Your task to perform on an android device: install app "Indeed Job Search" Image 0: 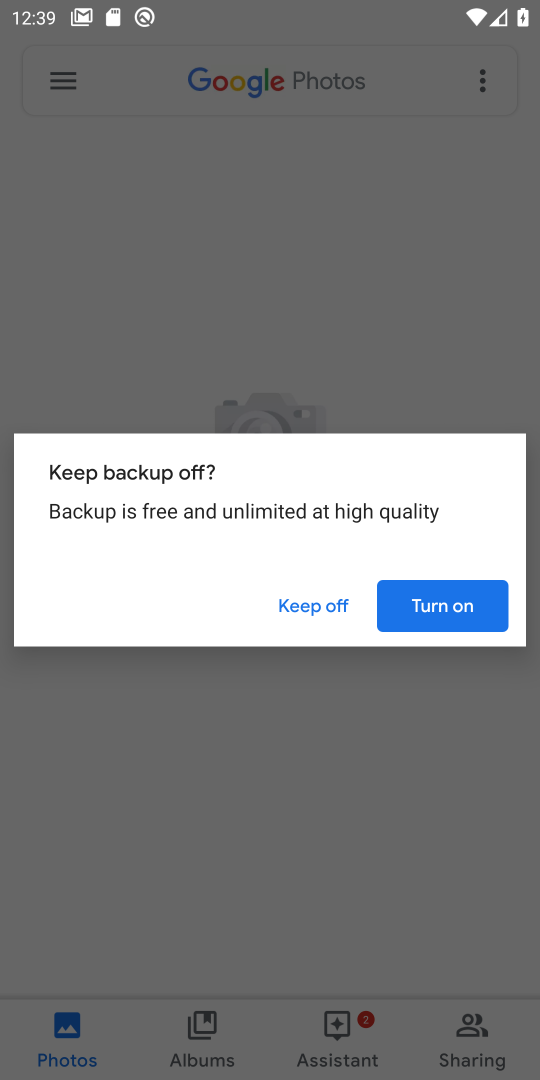
Step 0: press home button
Your task to perform on an android device: install app "Indeed Job Search" Image 1: 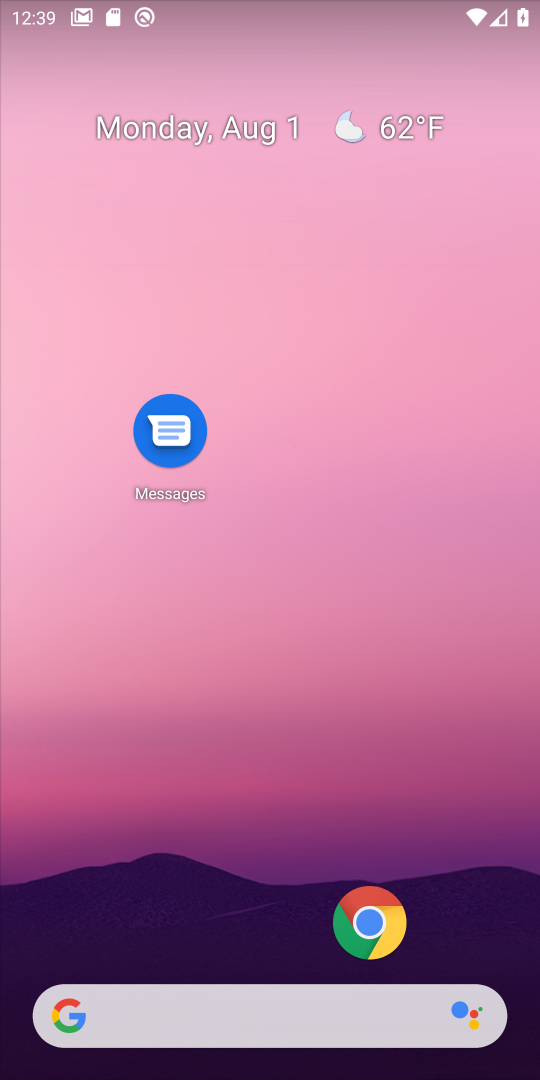
Step 1: drag from (279, 742) to (293, 42)
Your task to perform on an android device: install app "Indeed Job Search" Image 2: 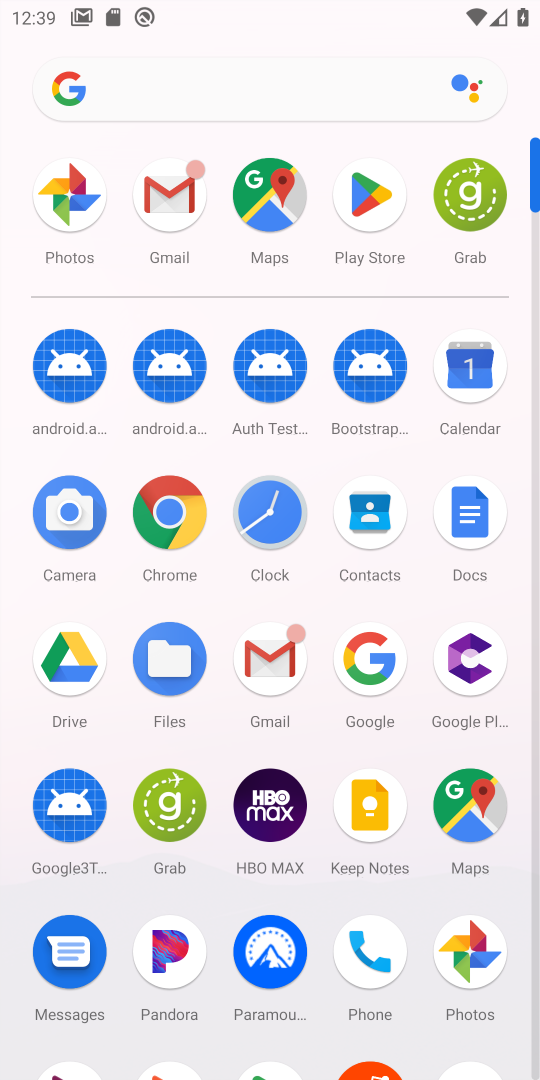
Step 2: click (361, 232)
Your task to perform on an android device: install app "Indeed Job Search" Image 3: 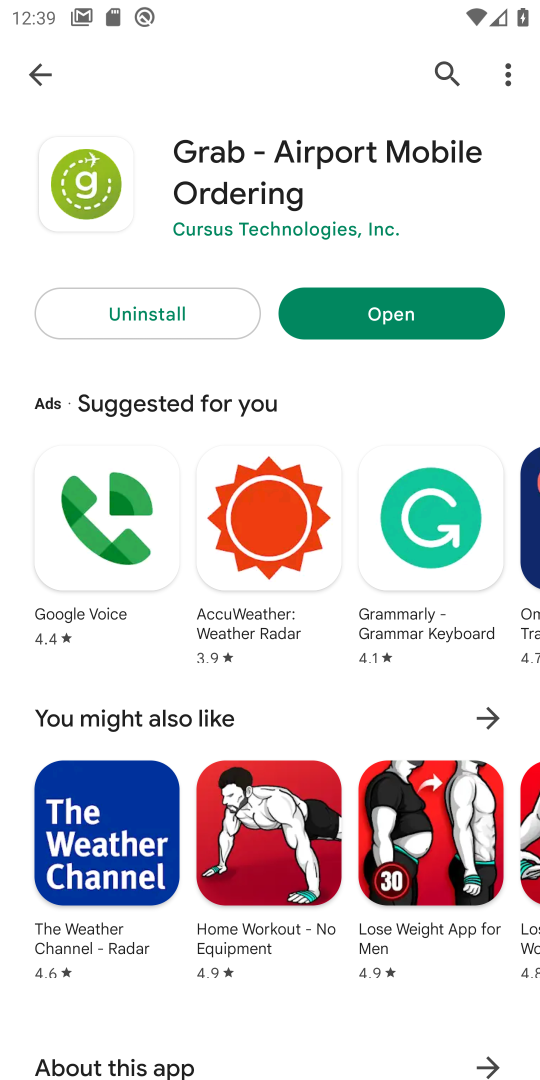
Step 3: click (442, 80)
Your task to perform on an android device: install app "Indeed Job Search" Image 4: 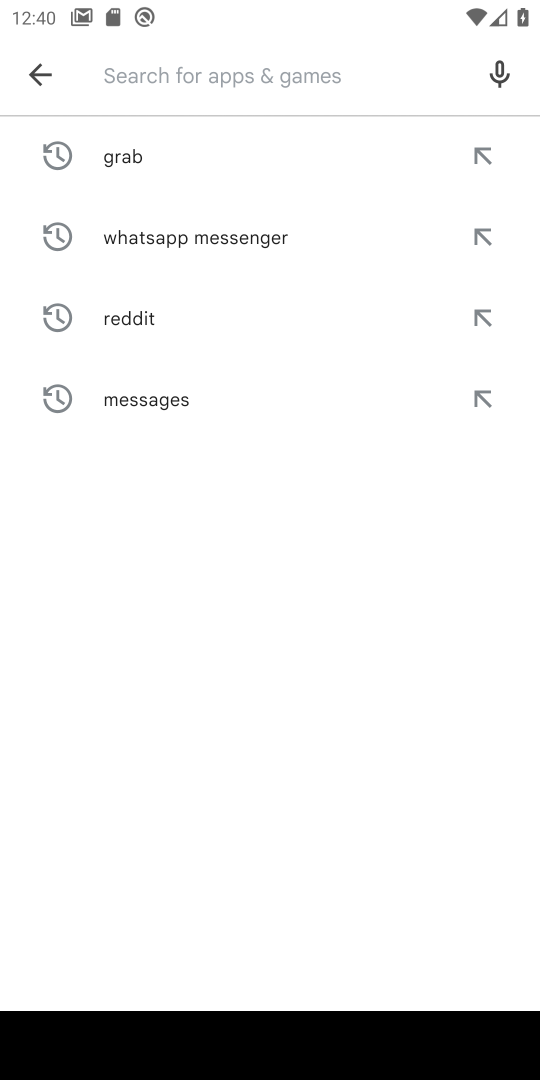
Step 4: type "Indeed Job Search"
Your task to perform on an android device: install app "Indeed Job Search" Image 5: 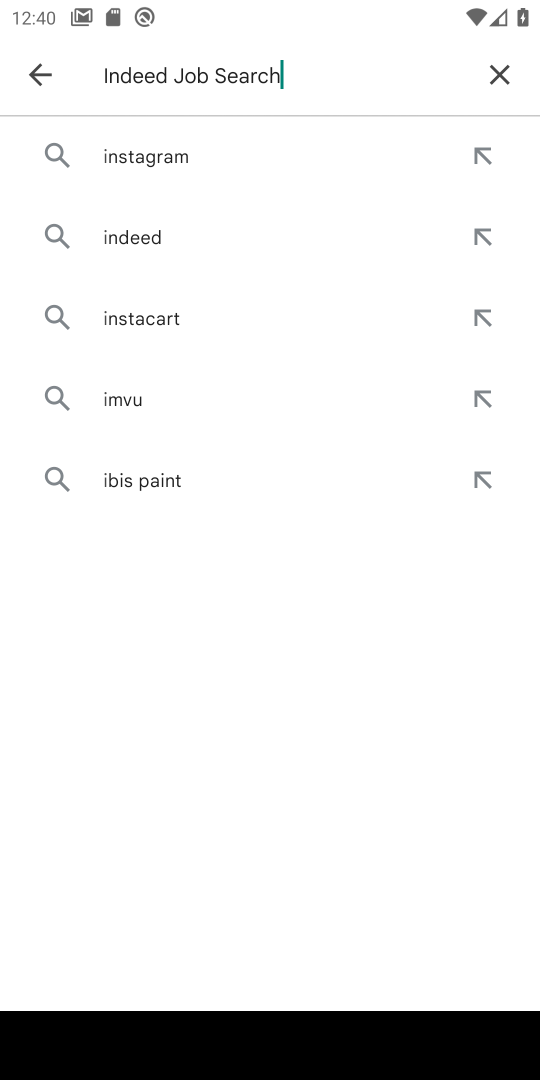
Step 5: type ""
Your task to perform on an android device: install app "Indeed Job Search" Image 6: 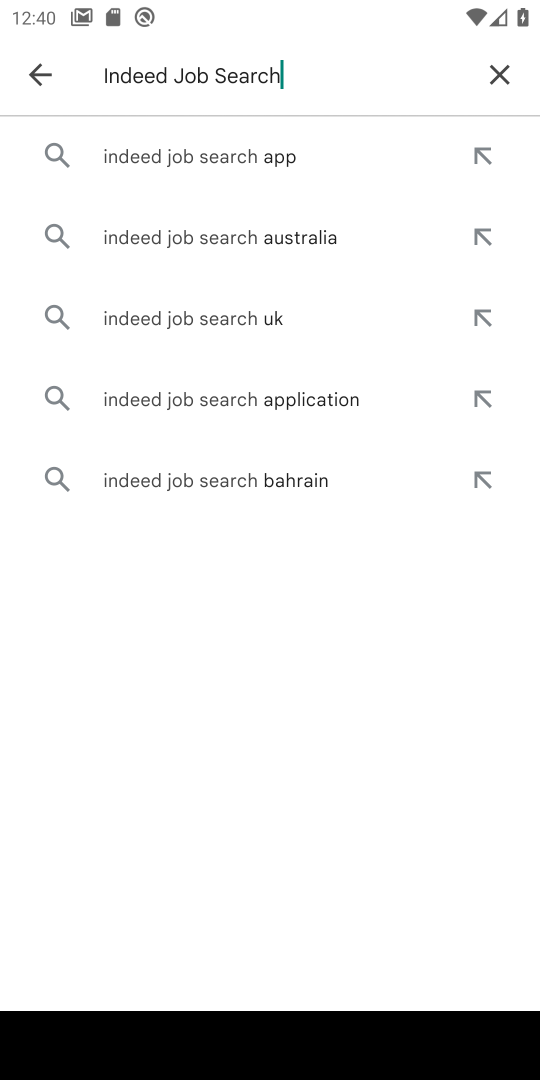
Step 6: click (282, 169)
Your task to perform on an android device: install app "Indeed Job Search" Image 7: 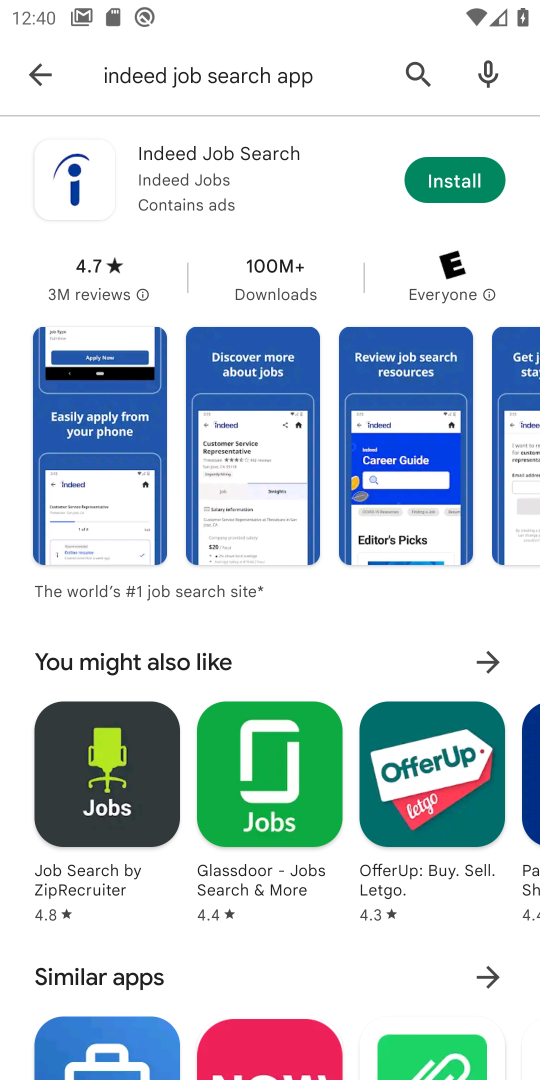
Step 7: click (454, 179)
Your task to perform on an android device: install app "Indeed Job Search" Image 8: 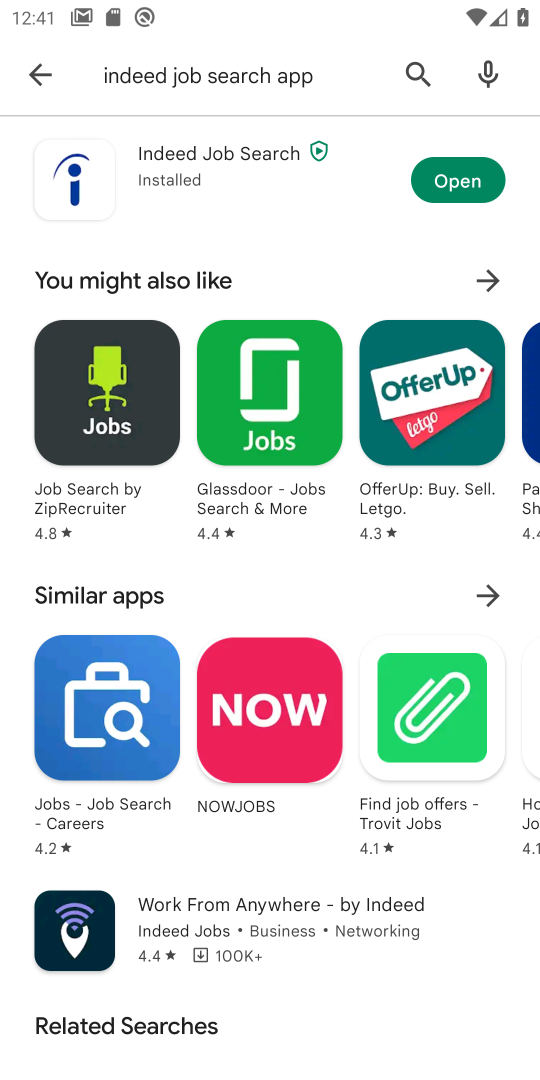
Step 8: task complete